Your task to perform on an android device: move an email to a new category in the gmail app Image 0: 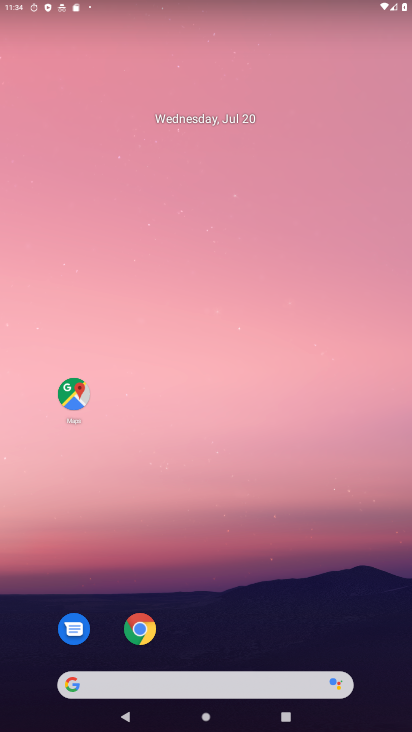
Step 0: drag from (210, 689) to (300, 48)
Your task to perform on an android device: move an email to a new category in the gmail app Image 1: 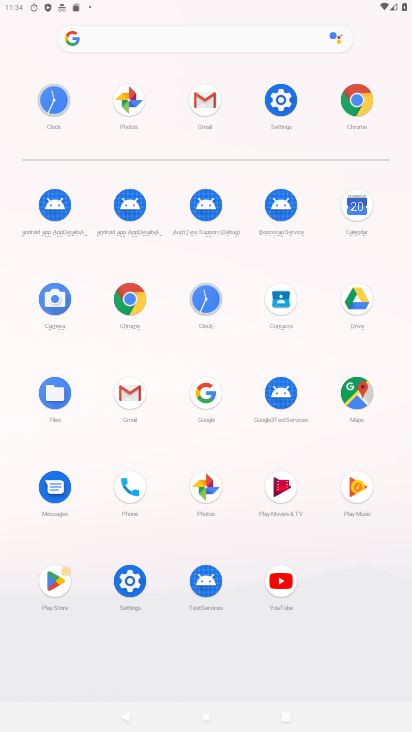
Step 1: click (135, 399)
Your task to perform on an android device: move an email to a new category in the gmail app Image 2: 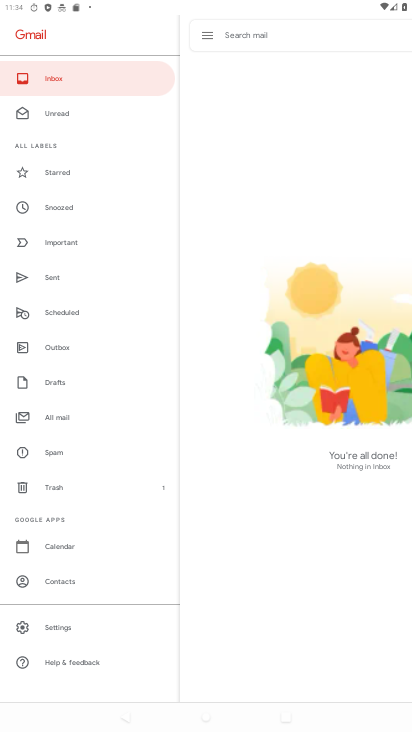
Step 2: click (97, 90)
Your task to perform on an android device: move an email to a new category in the gmail app Image 3: 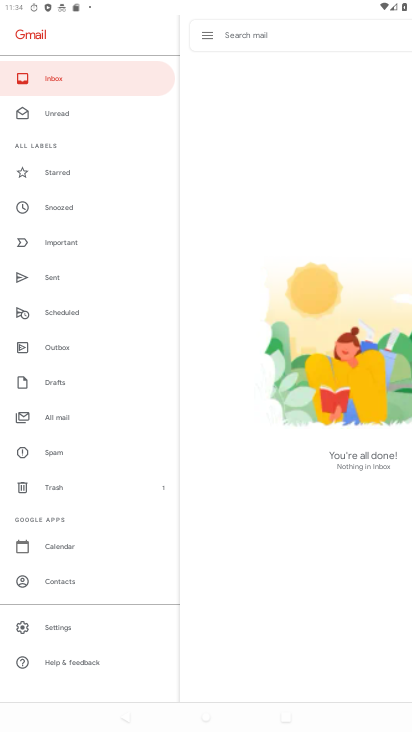
Step 3: task complete